Your task to perform on an android device: What is the recent news? Image 0: 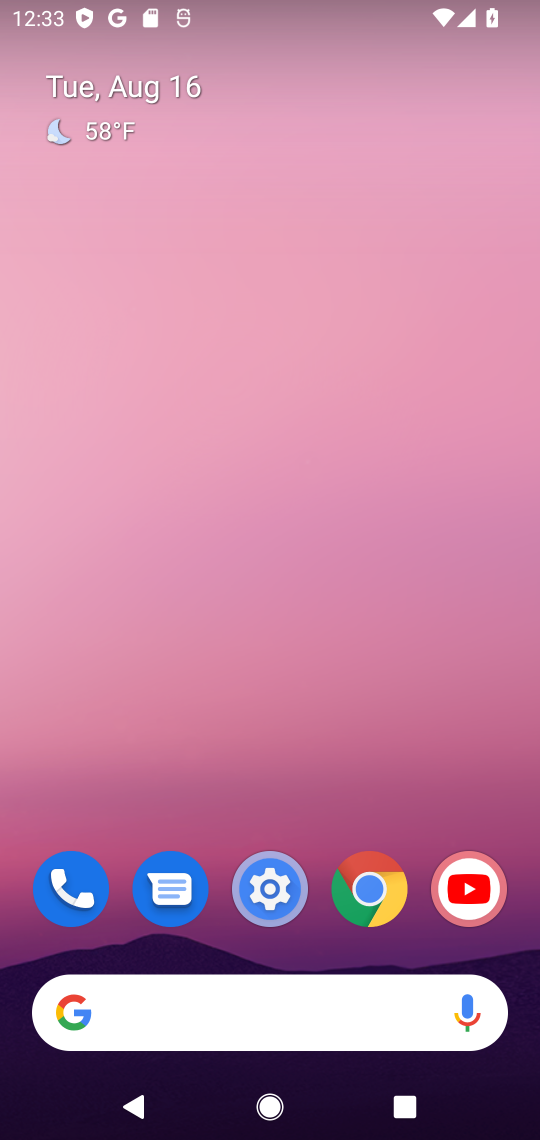
Step 0: drag from (379, 800) to (317, 24)
Your task to perform on an android device: What is the recent news? Image 1: 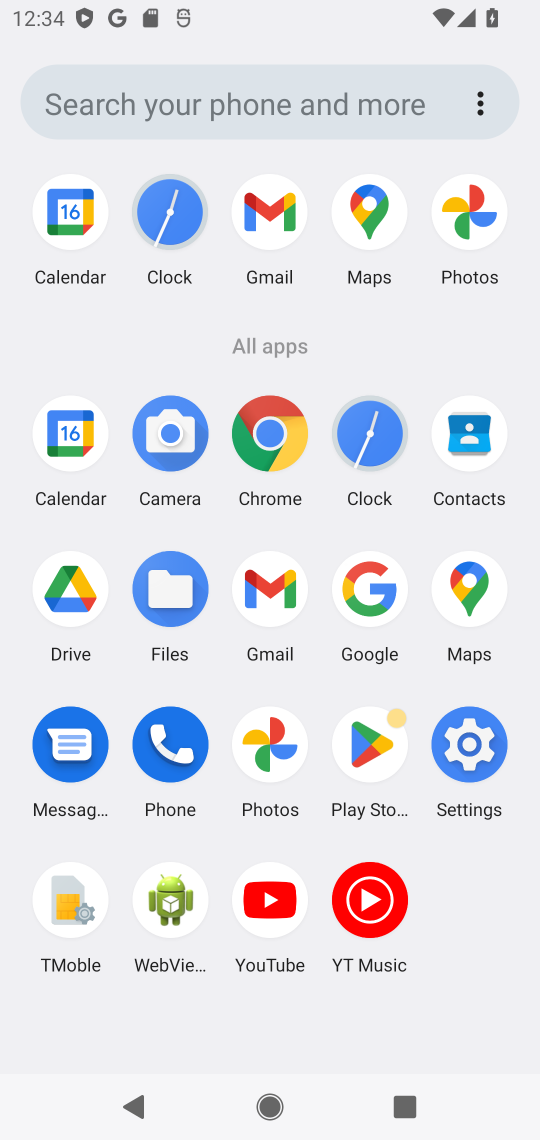
Step 1: click (249, 449)
Your task to perform on an android device: What is the recent news? Image 2: 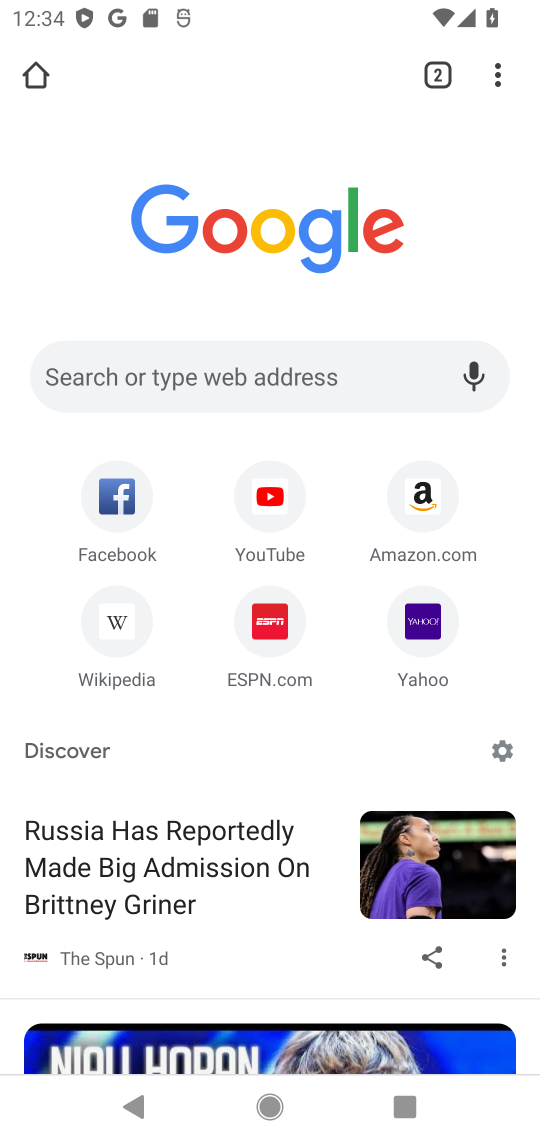
Step 2: task complete